Your task to perform on an android device: open app "Etsy: Buy & Sell Unique Items" (install if not already installed) Image 0: 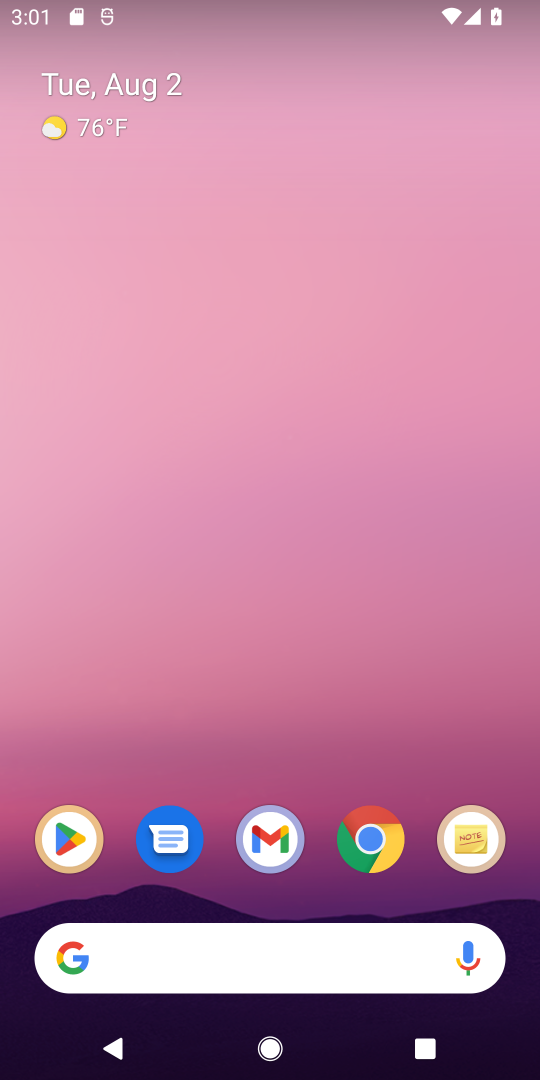
Step 0: click (84, 857)
Your task to perform on an android device: open app "Etsy: Buy & Sell Unique Items" (install if not already installed) Image 1: 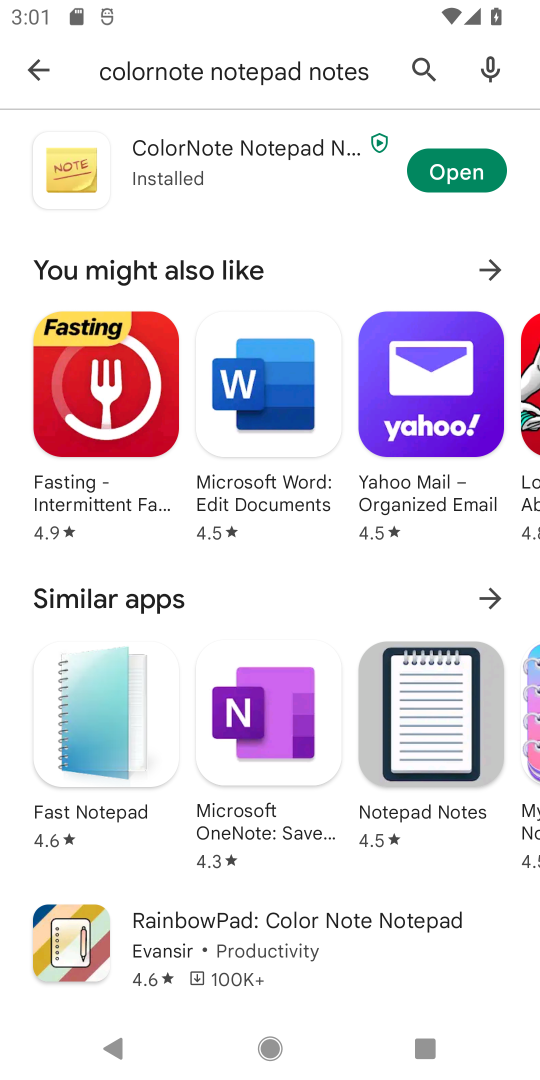
Step 1: click (433, 86)
Your task to perform on an android device: open app "Etsy: Buy & Sell Unique Items" (install if not already installed) Image 2: 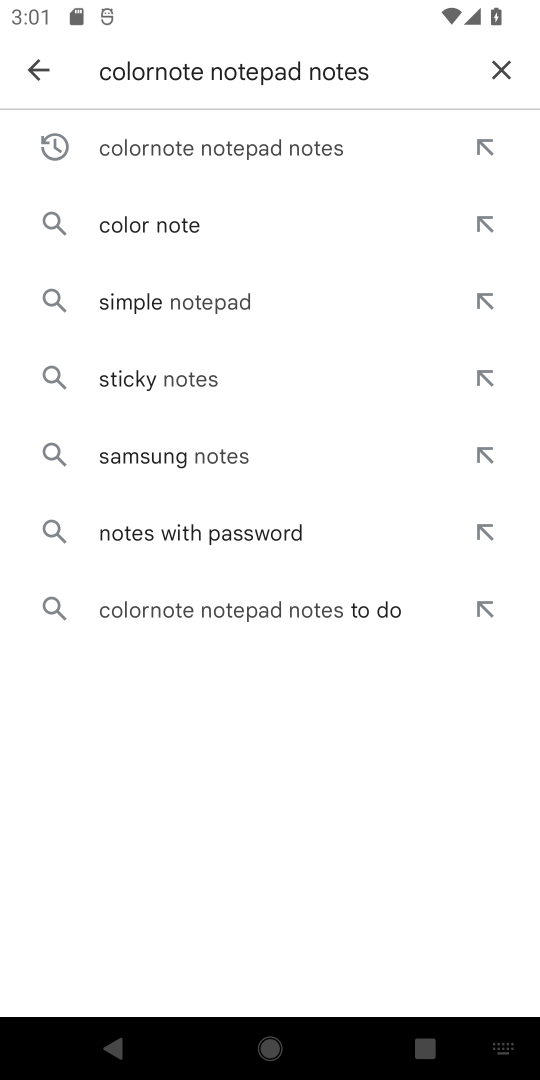
Step 2: click (482, 86)
Your task to perform on an android device: open app "Etsy: Buy & Sell Unique Items" (install if not already installed) Image 3: 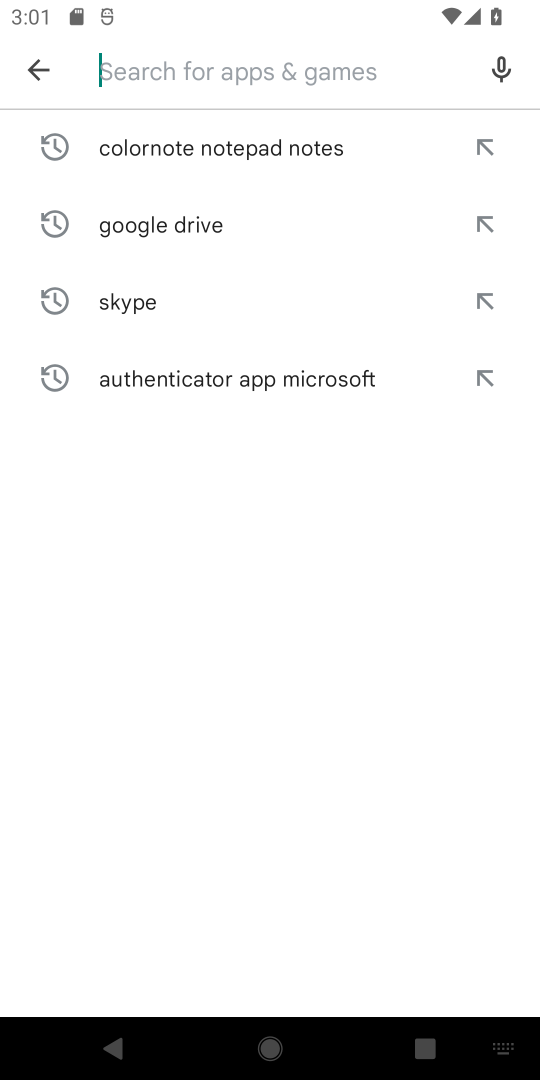
Step 3: type "etsy"
Your task to perform on an android device: open app "Etsy: Buy & Sell Unique Items" (install if not already installed) Image 4: 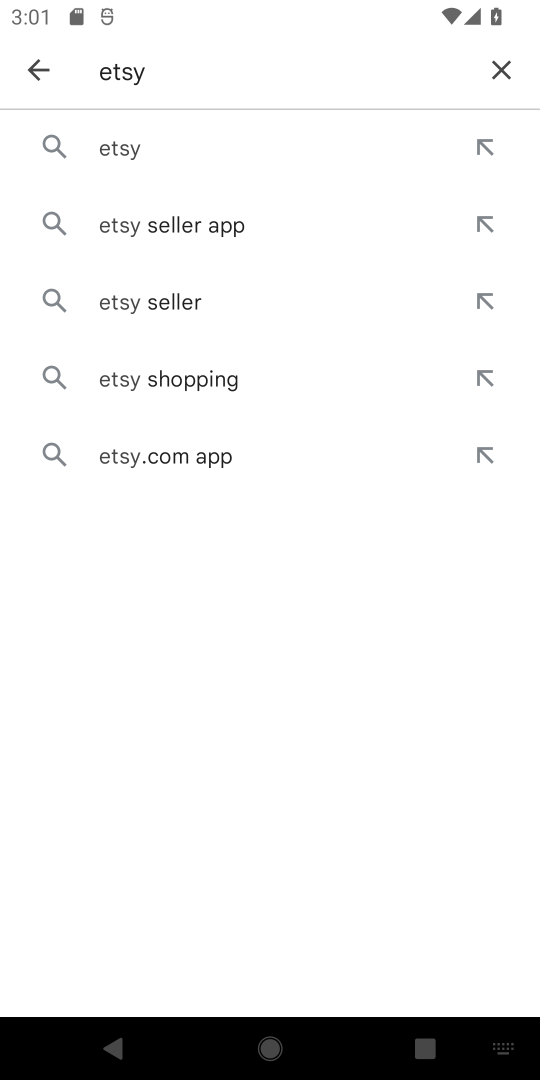
Step 4: click (290, 139)
Your task to perform on an android device: open app "Etsy: Buy & Sell Unique Items" (install if not already installed) Image 5: 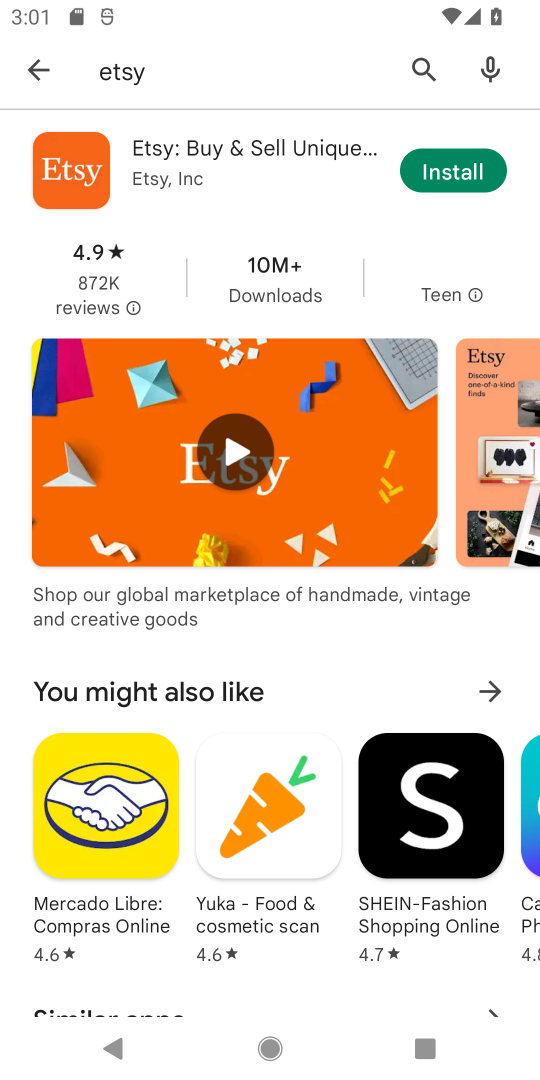
Step 5: click (409, 161)
Your task to perform on an android device: open app "Etsy: Buy & Sell Unique Items" (install if not already installed) Image 6: 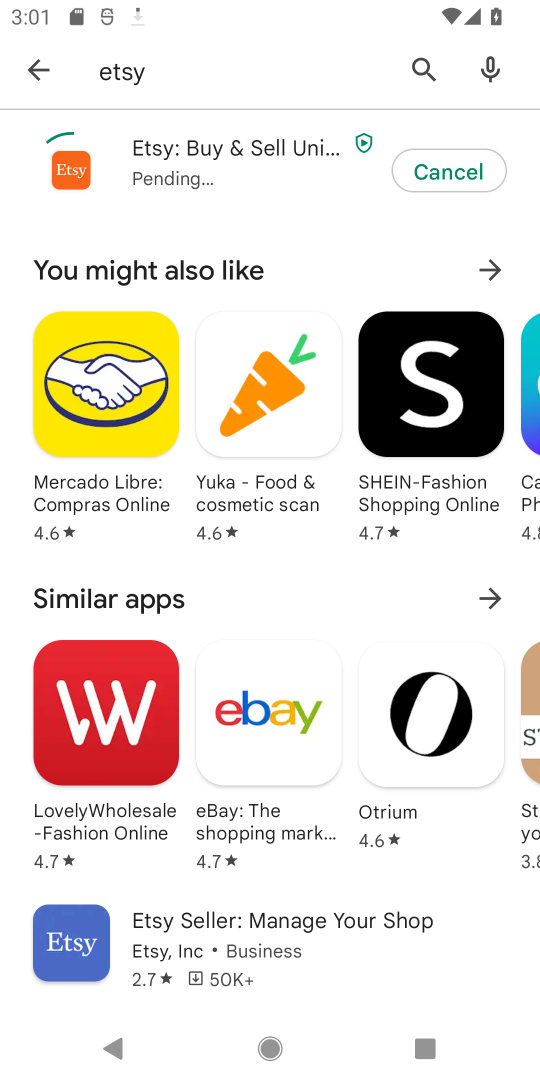
Step 6: task complete